Your task to perform on an android device: Go to eBay Image 0: 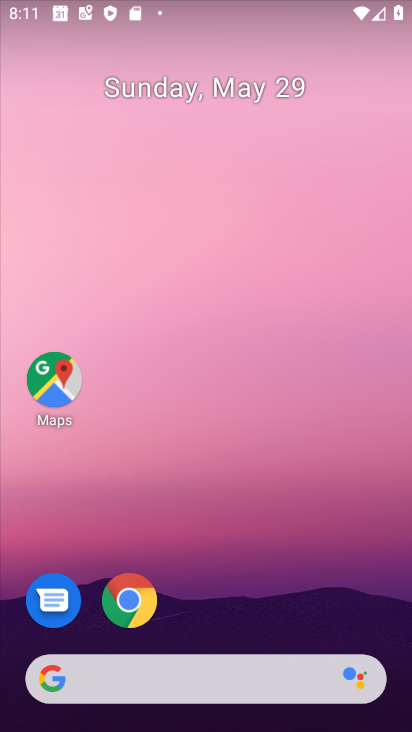
Step 0: drag from (309, 594) to (326, 204)
Your task to perform on an android device: Go to eBay Image 1: 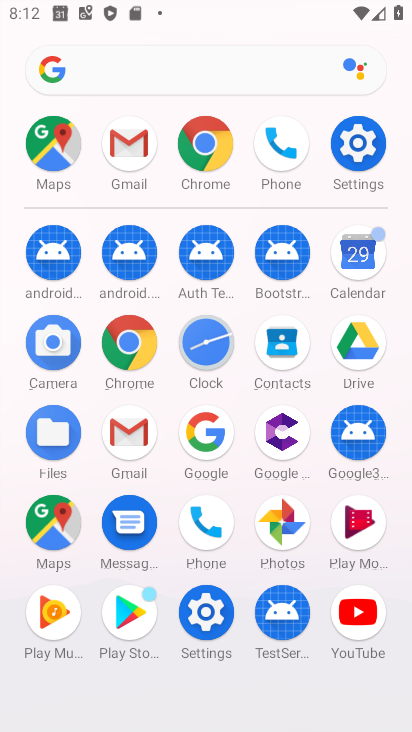
Step 1: click (112, 338)
Your task to perform on an android device: Go to eBay Image 2: 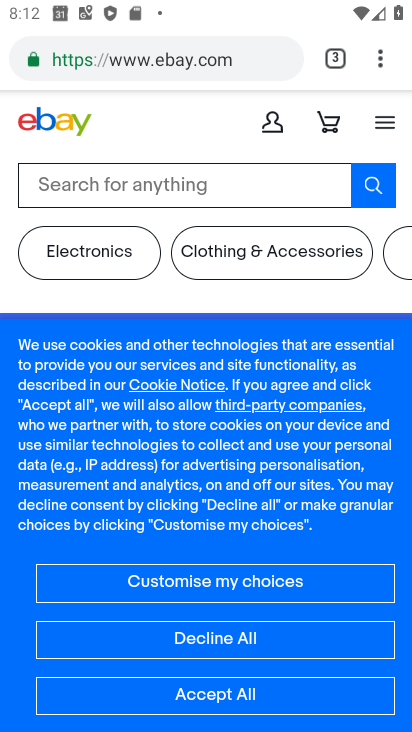
Step 2: click (194, 70)
Your task to perform on an android device: Go to eBay Image 3: 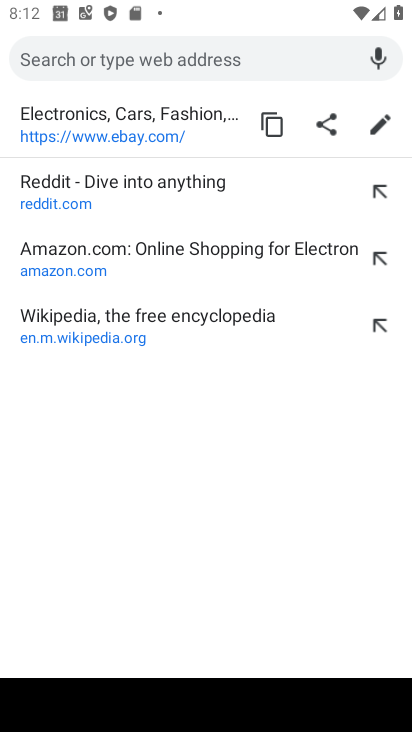
Step 3: type "ebay"
Your task to perform on an android device: Go to eBay Image 4: 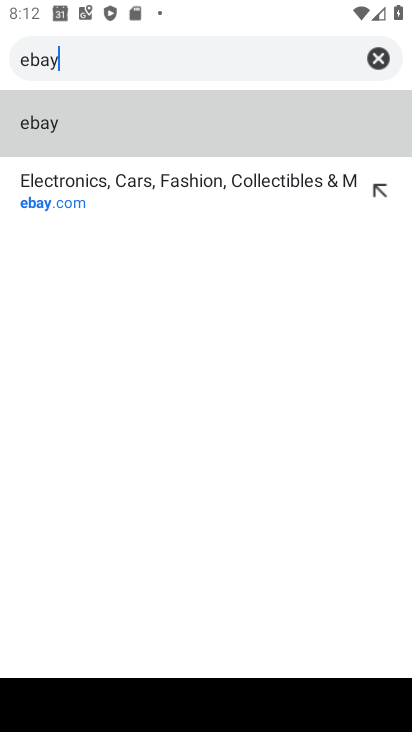
Step 4: click (108, 119)
Your task to perform on an android device: Go to eBay Image 5: 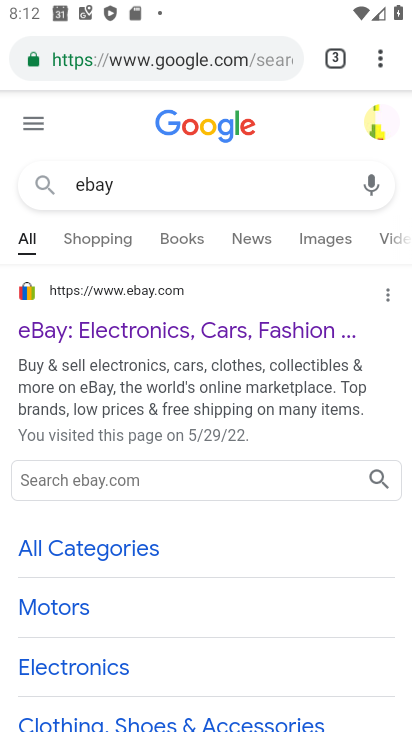
Step 5: task complete